Your task to perform on an android device: What is the recent news? Image 0: 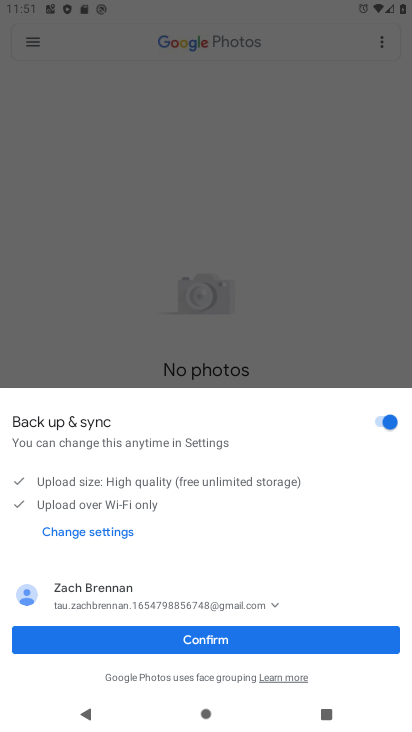
Step 0: press home button
Your task to perform on an android device: What is the recent news? Image 1: 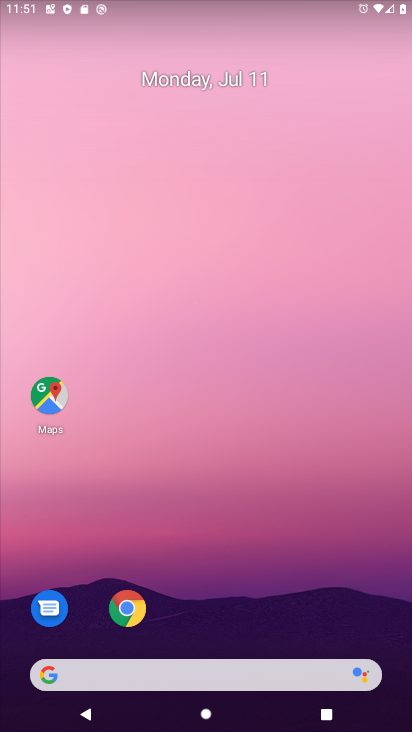
Step 1: drag from (168, 494) to (168, 261)
Your task to perform on an android device: What is the recent news? Image 2: 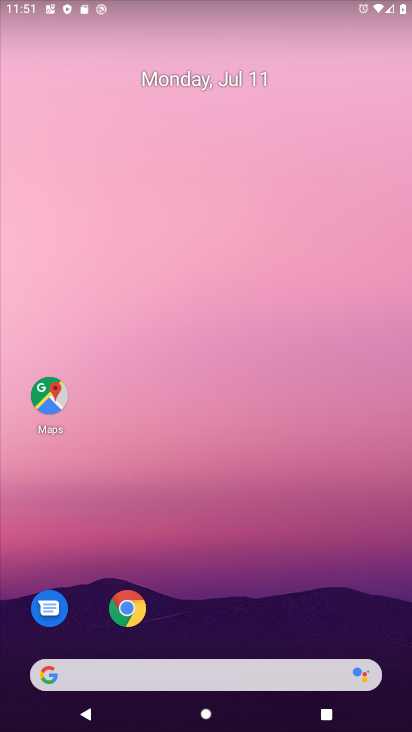
Step 2: drag from (167, 517) to (167, 247)
Your task to perform on an android device: What is the recent news? Image 3: 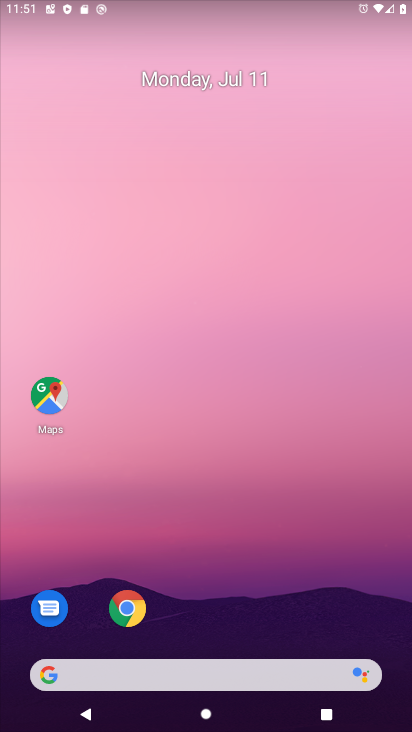
Step 3: drag from (217, 652) to (225, 183)
Your task to perform on an android device: What is the recent news? Image 4: 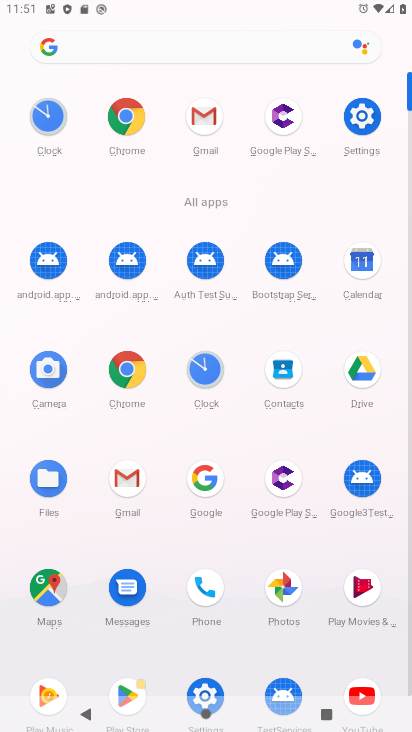
Step 4: click (198, 482)
Your task to perform on an android device: What is the recent news? Image 5: 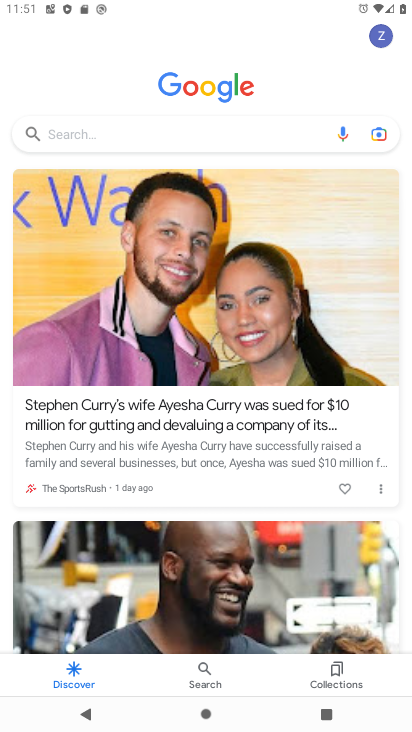
Step 5: click (106, 132)
Your task to perform on an android device: What is the recent news? Image 6: 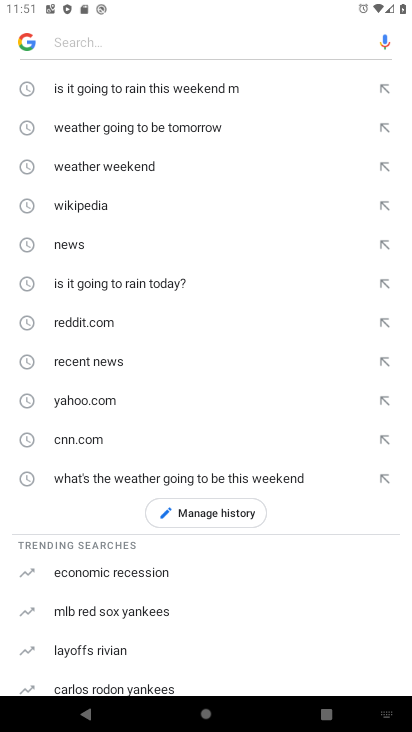
Step 6: click (94, 356)
Your task to perform on an android device: What is the recent news? Image 7: 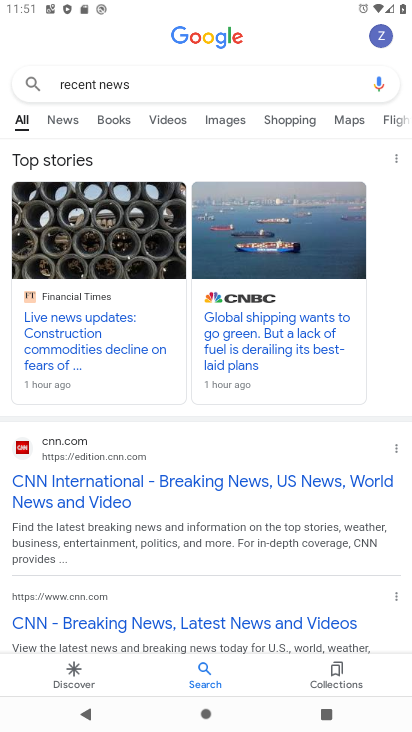
Step 7: task complete